Your task to perform on an android device: Open the web browser Image 0: 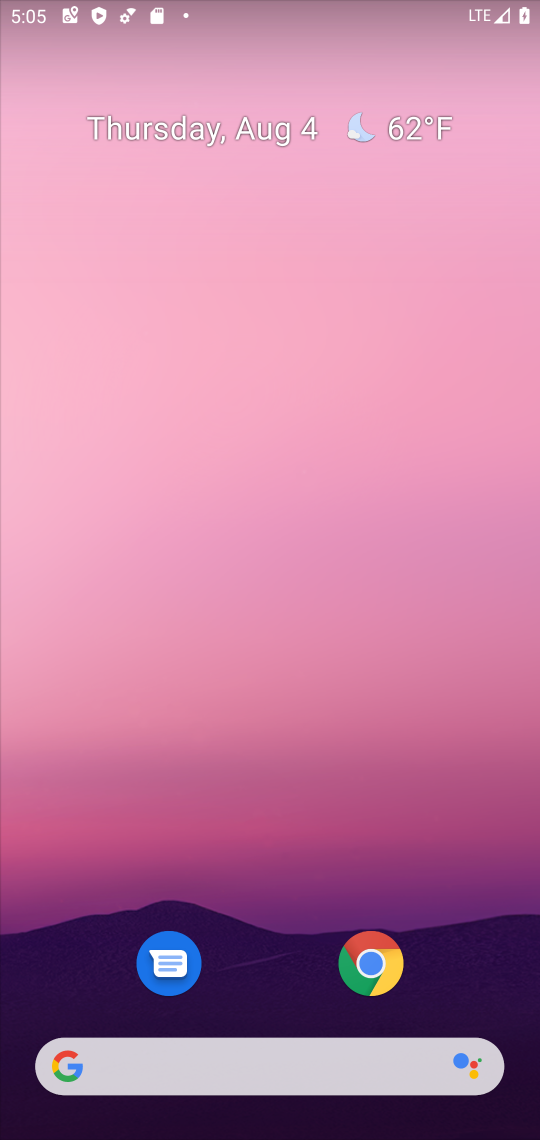
Step 0: click (377, 954)
Your task to perform on an android device: Open the web browser Image 1: 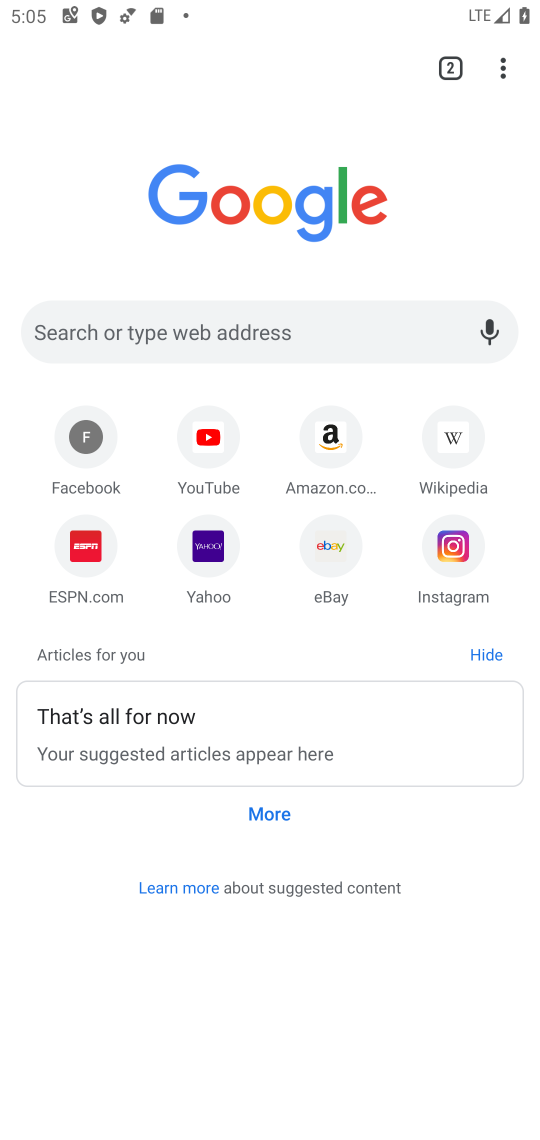
Step 1: task complete